Your task to perform on an android device: Open Youtube and go to the subscriptions tab Image 0: 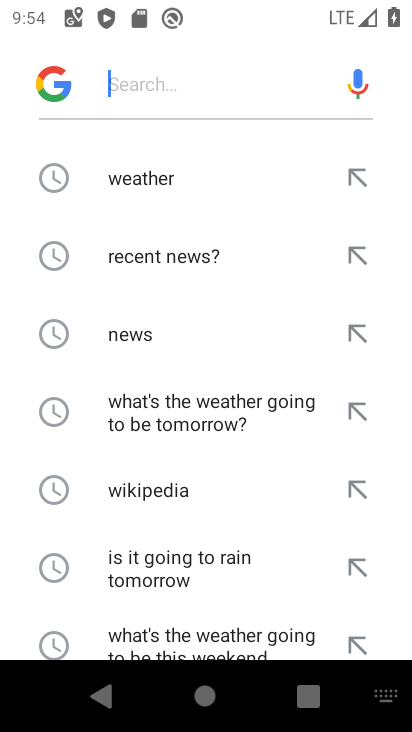
Step 0: press back button
Your task to perform on an android device: Open Youtube and go to the subscriptions tab Image 1: 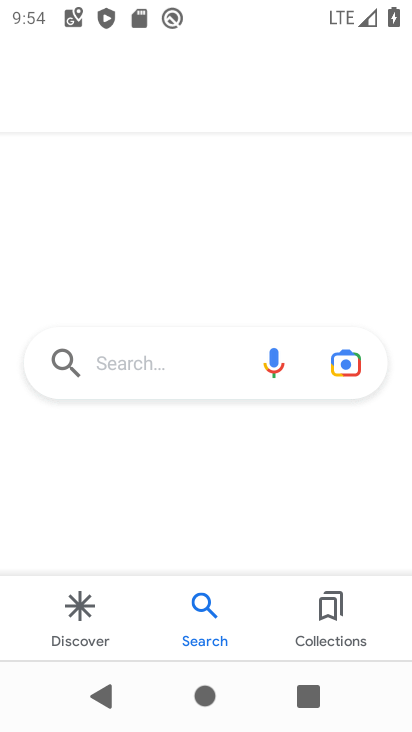
Step 1: press back button
Your task to perform on an android device: Open Youtube and go to the subscriptions tab Image 2: 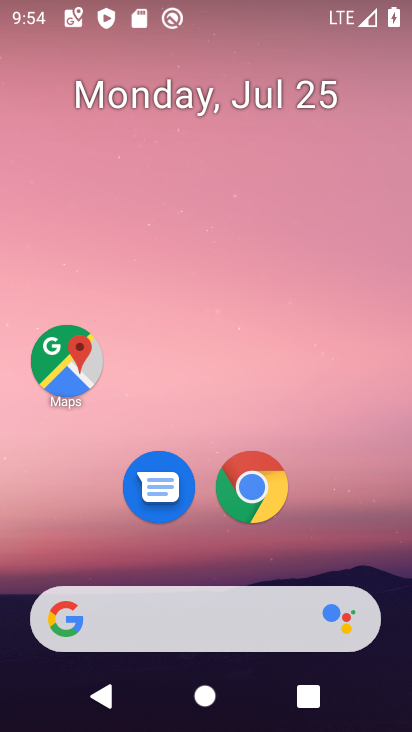
Step 2: drag from (187, 570) to (222, 146)
Your task to perform on an android device: Open Youtube and go to the subscriptions tab Image 3: 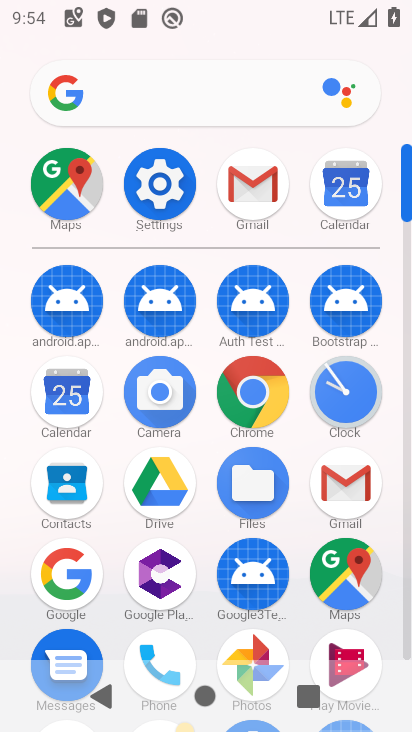
Step 3: drag from (232, 608) to (250, 30)
Your task to perform on an android device: Open Youtube and go to the subscriptions tab Image 4: 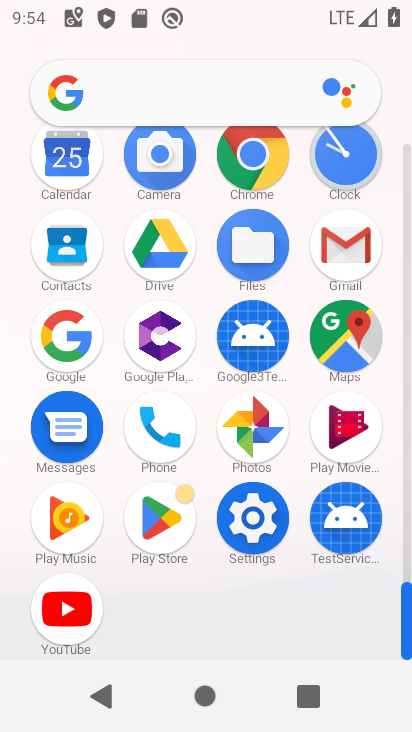
Step 4: click (66, 606)
Your task to perform on an android device: Open Youtube and go to the subscriptions tab Image 5: 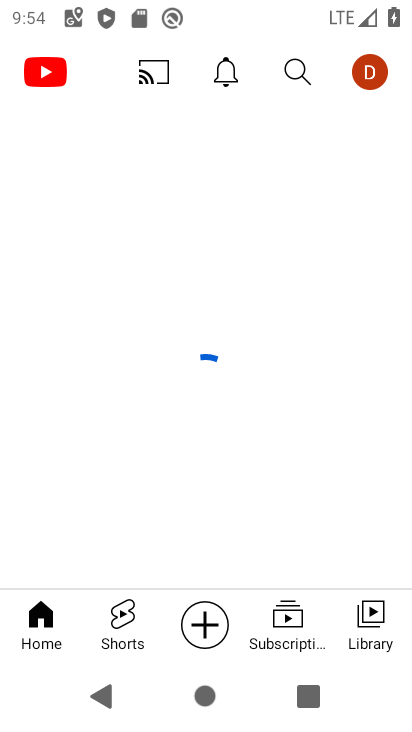
Step 5: click (292, 612)
Your task to perform on an android device: Open Youtube and go to the subscriptions tab Image 6: 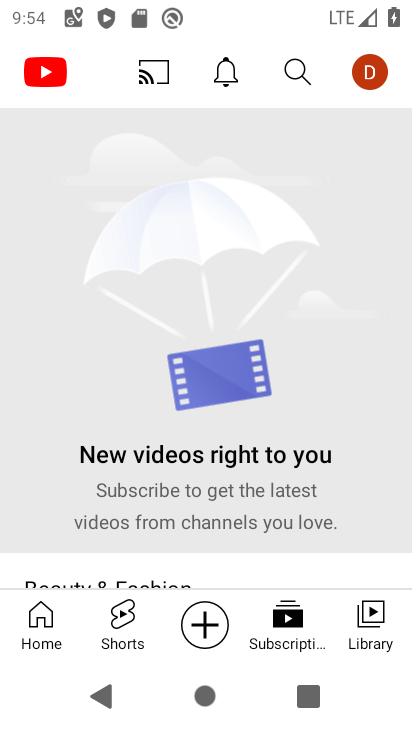
Step 6: task complete